Your task to perform on an android device: Go to Yahoo.com Image 0: 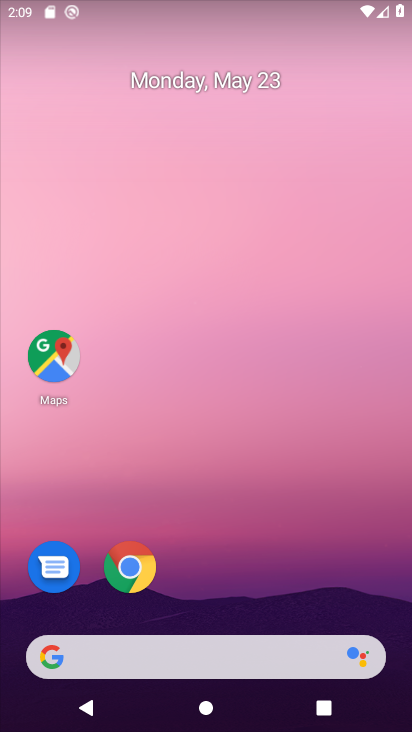
Step 0: click (141, 560)
Your task to perform on an android device: Go to Yahoo.com Image 1: 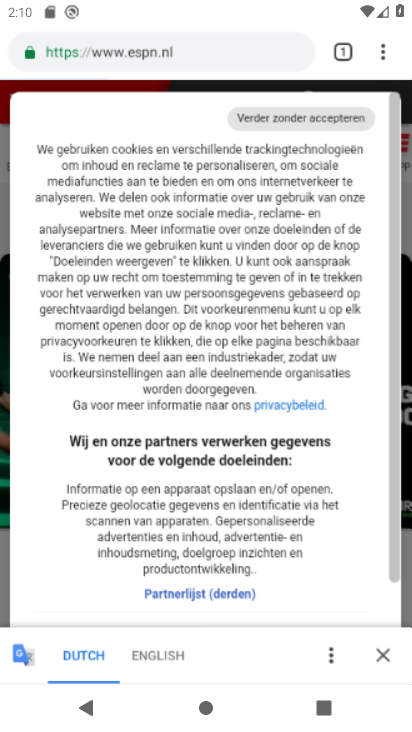
Step 1: click (334, 52)
Your task to perform on an android device: Go to Yahoo.com Image 2: 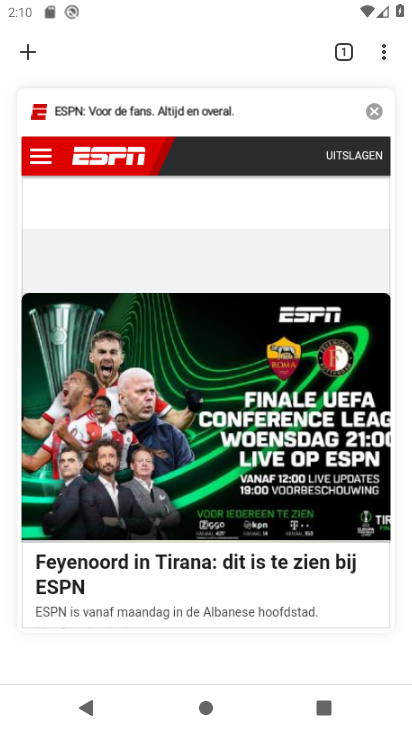
Step 2: click (33, 53)
Your task to perform on an android device: Go to Yahoo.com Image 3: 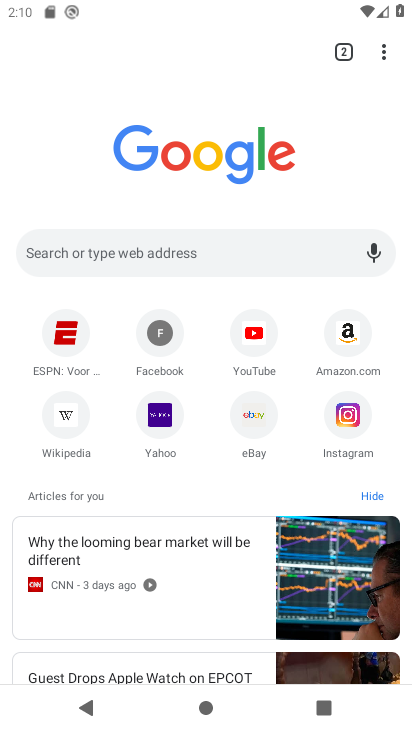
Step 3: click (162, 415)
Your task to perform on an android device: Go to Yahoo.com Image 4: 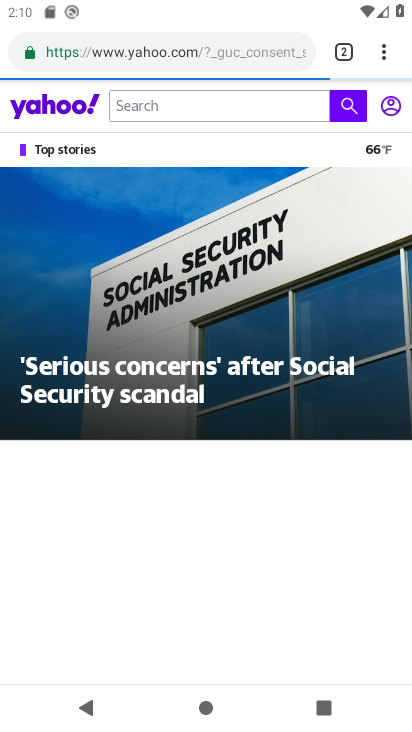
Step 4: task complete